Your task to perform on an android device: open sync settings in chrome Image 0: 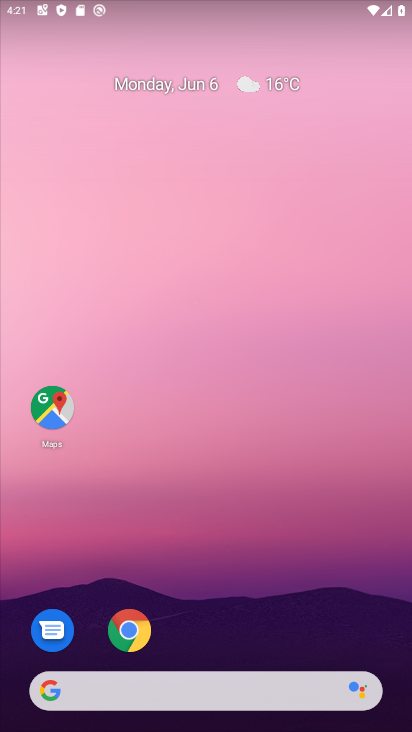
Step 0: click (137, 623)
Your task to perform on an android device: open sync settings in chrome Image 1: 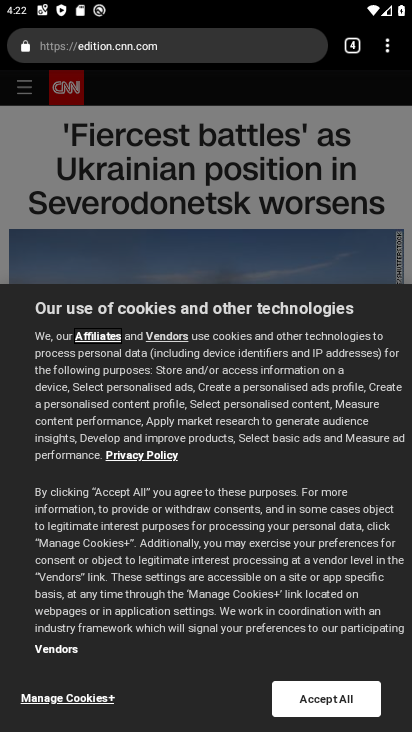
Step 1: drag from (381, 47) to (232, 505)
Your task to perform on an android device: open sync settings in chrome Image 2: 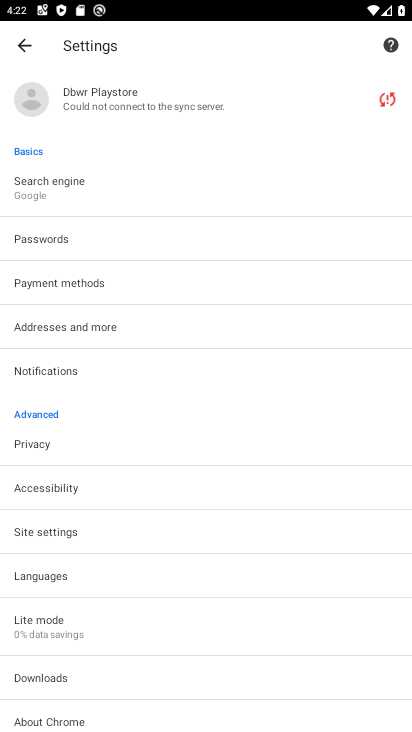
Step 2: click (128, 99)
Your task to perform on an android device: open sync settings in chrome Image 3: 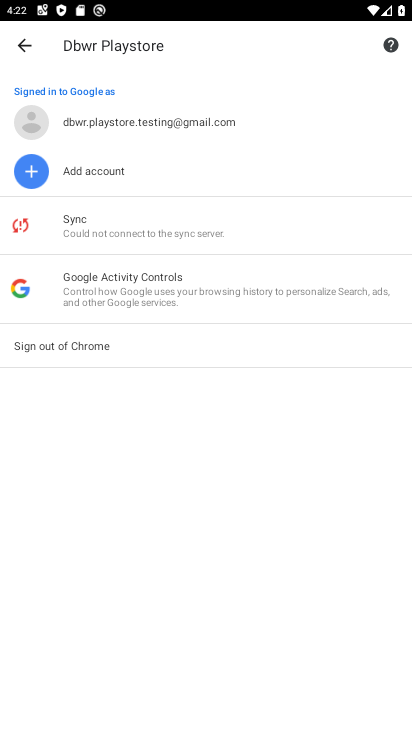
Step 3: task complete